Your task to perform on an android device: choose inbox layout in the gmail app Image 0: 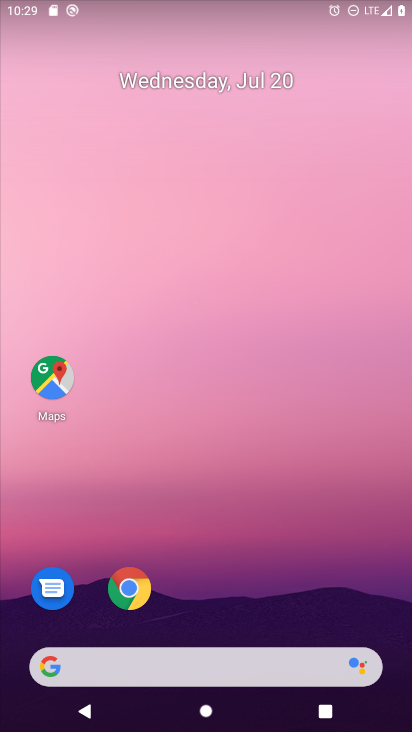
Step 0: drag from (185, 590) to (164, 61)
Your task to perform on an android device: choose inbox layout in the gmail app Image 1: 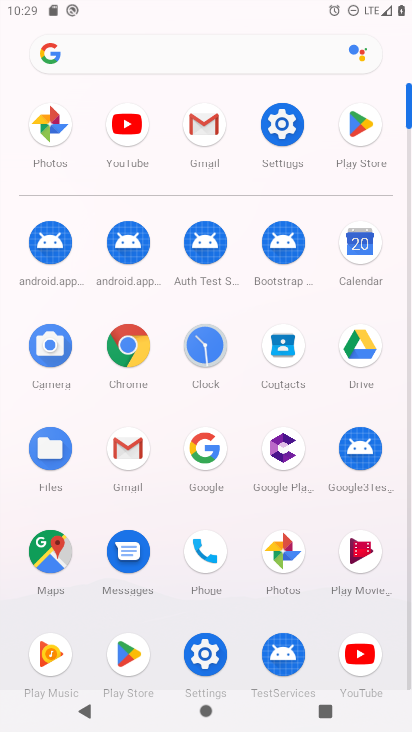
Step 1: click (209, 117)
Your task to perform on an android device: choose inbox layout in the gmail app Image 2: 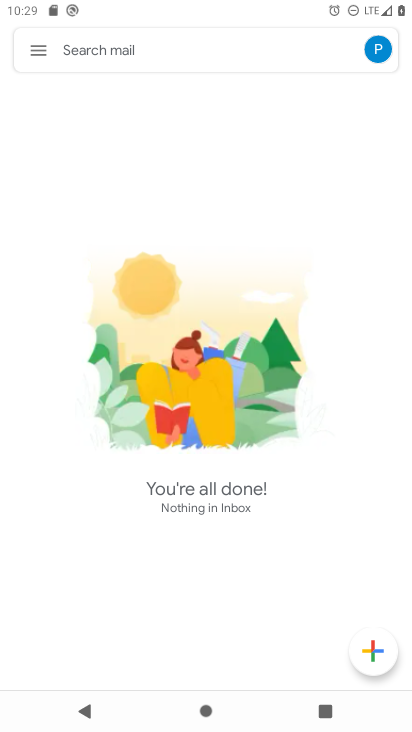
Step 2: click (44, 47)
Your task to perform on an android device: choose inbox layout in the gmail app Image 3: 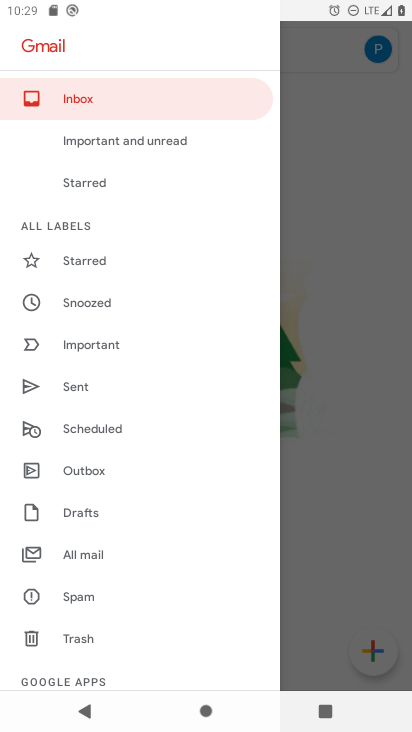
Step 3: drag from (115, 656) to (180, 251)
Your task to perform on an android device: choose inbox layout in the gmail app Image 4: 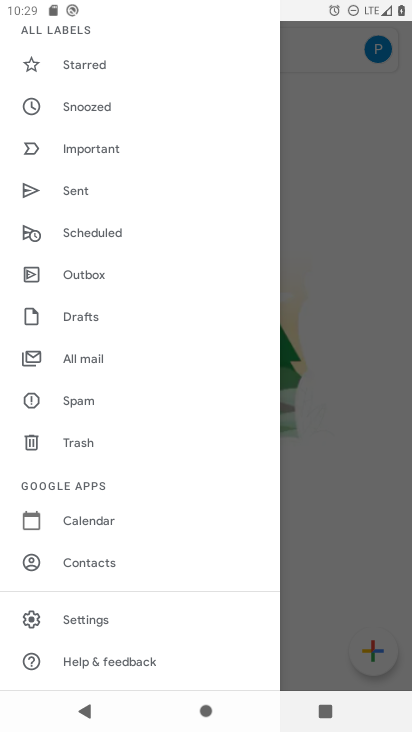
Step 4: click (101, 633)
Your task to perform on an android device: choose inbox layout in the gmail app Image 5: 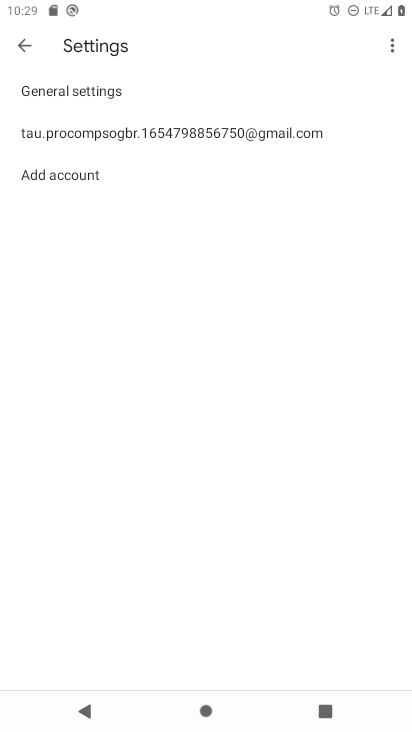
Step 5: click (341, 139)
Your task to perform on an android device: choose inbox layout in the gmail app Image 6: 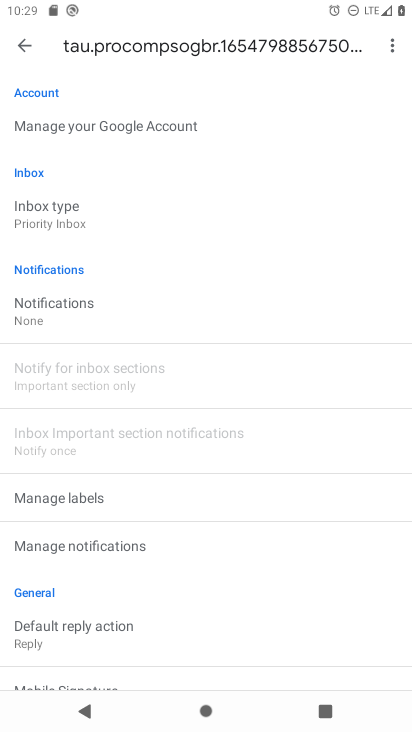
Step 6: click (116, 227)
Your task to perform on an android device: choose inbox layout in the gmail app Image 7: 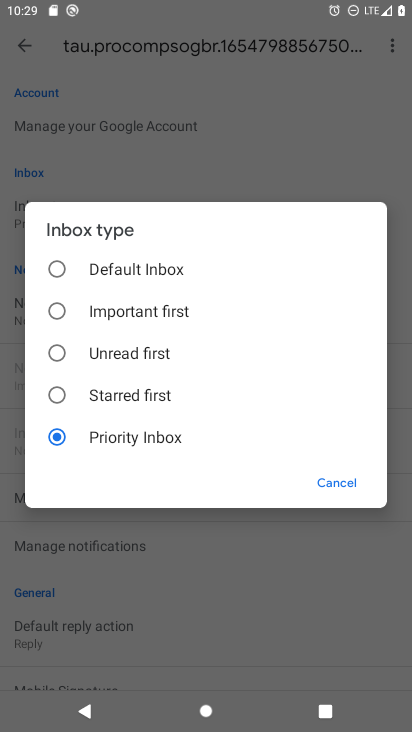
Step 7: click (170, 337)
Your task to perform on an android device: choose inbox layout in the gmail app Image 8: 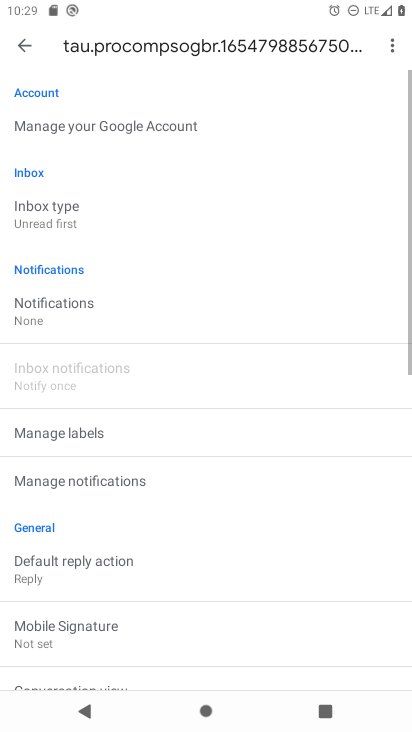
Step 8: task complete